Your task to perform on an android device: Clear all items from cart on ebay.com. Image 0: 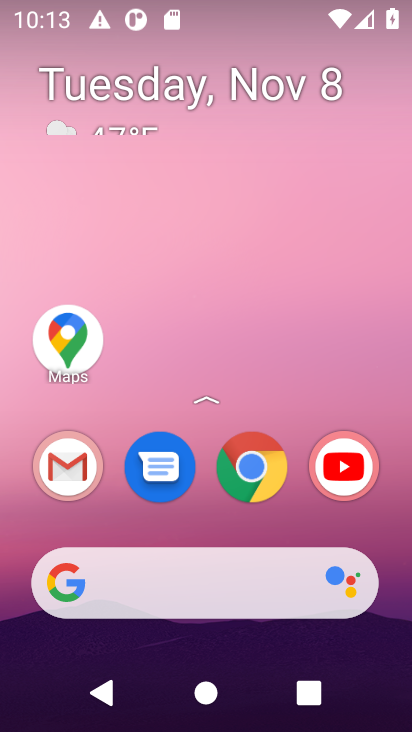
Step 0: click (249, 597)
Your task to perform on an android device: Clear all items from cart on ebay.com. Image 1: 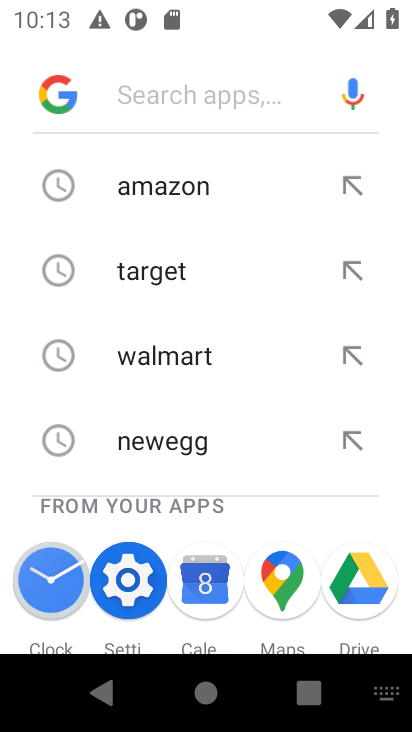
Step 1: type "ebay"
Your task to perform on an android device: Clear all items from cart on ebay.com. Image 2: 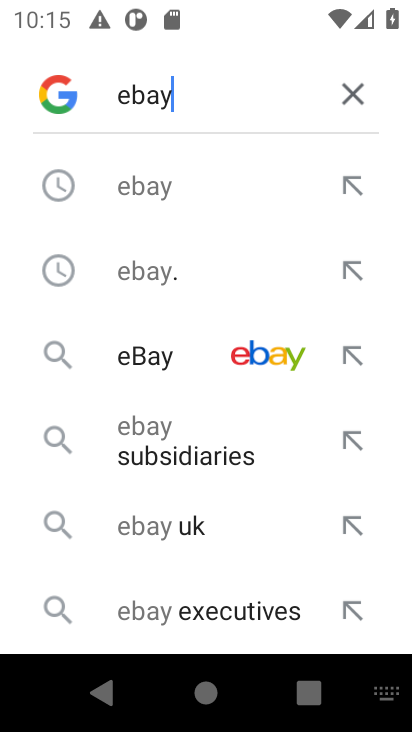
Step 2: click (227, 363)
Your task to perform on an android device: Clear all items from cart on ebay.com. Image 3: 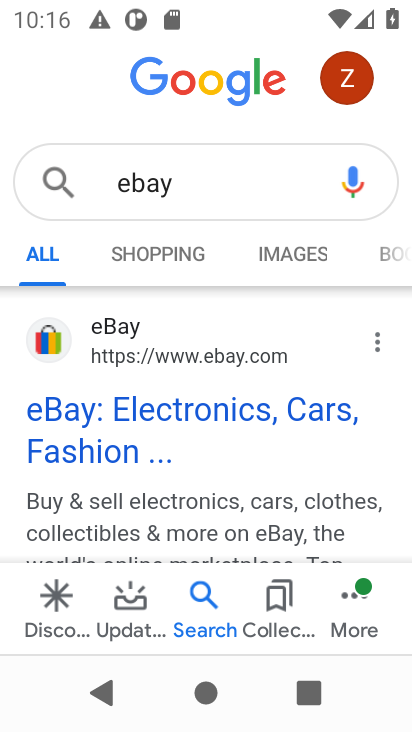
Step 3: click (145, 408)
Your task to perform on an android device: Clear all items from cart on ebay.com. Image 4: 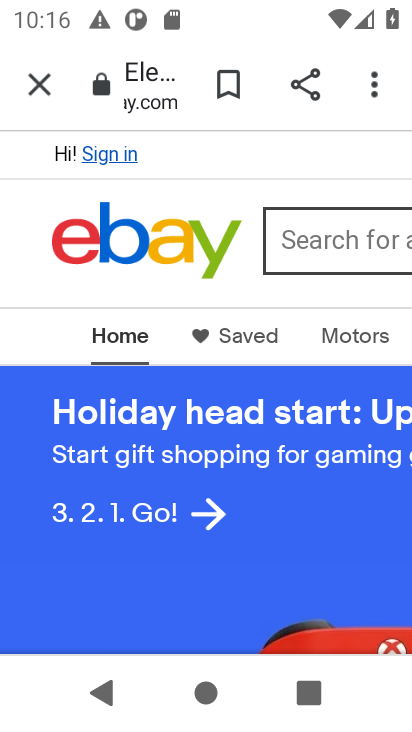
Step 4: click (332, 244)
Your task to perform on an android device: Clear all items from cart on ebay.com. Image 5: 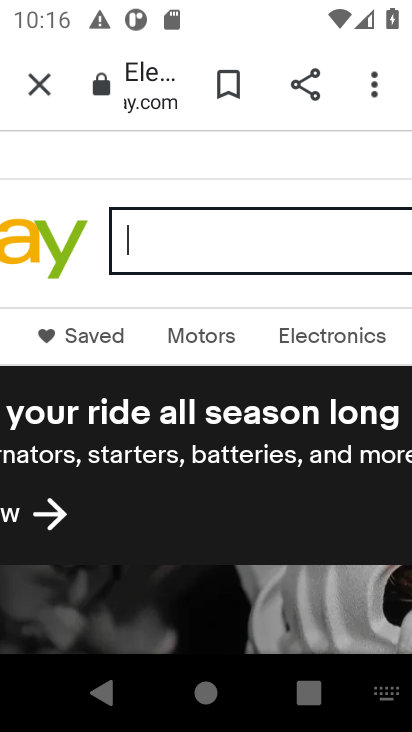
Step 5: task complete